Your task to perform on an android device: Open calendar and show me the fourth week of next month Image 0: 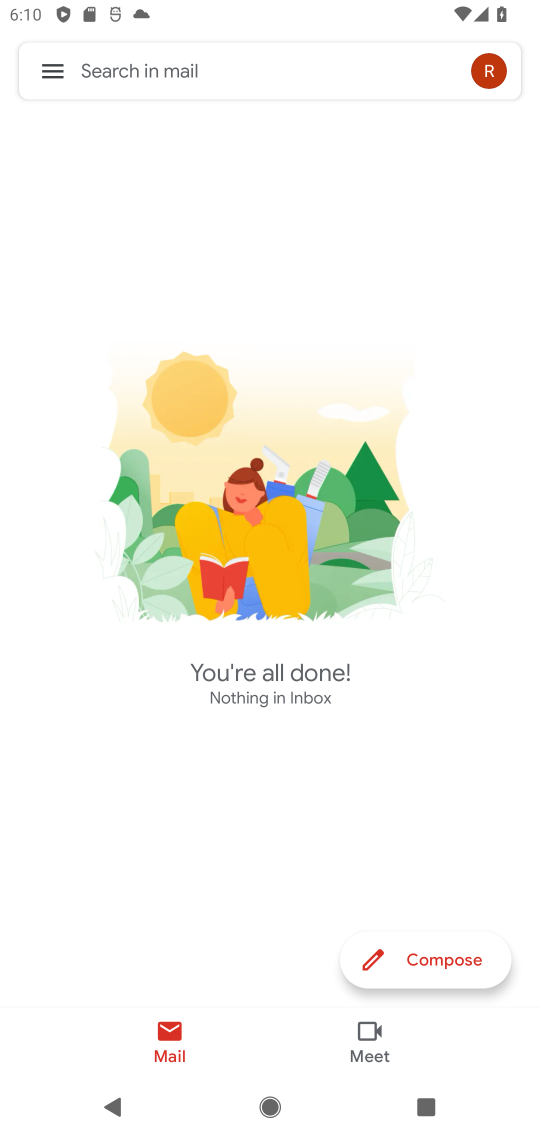
Step 0: press home button
Your task to perform on an android device: Open calendar and show me the fourth week of next month Image 1: 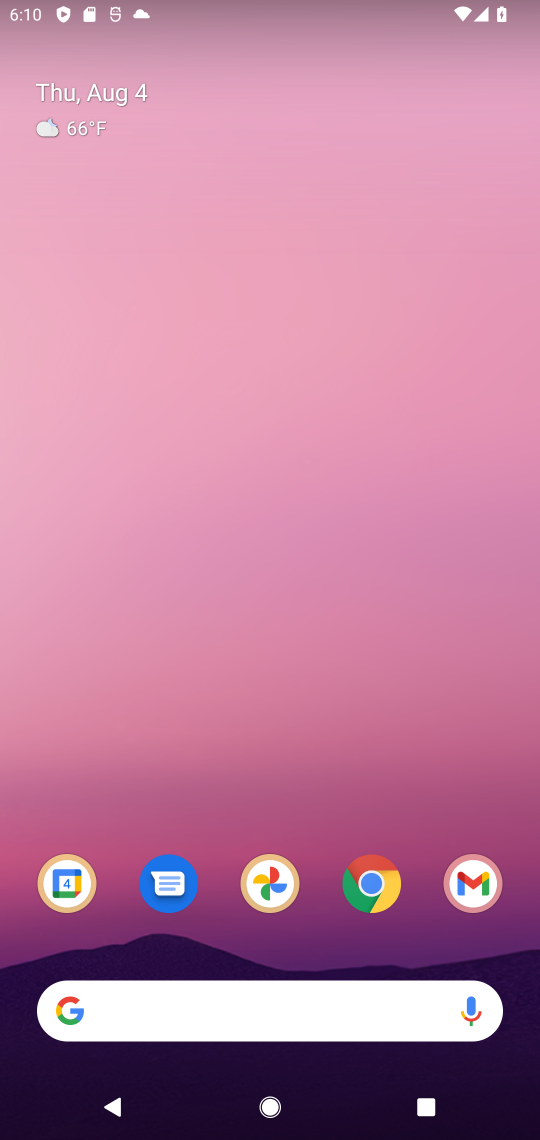
Step 1: click (59, 902)
Your task to perform on an android device: Open calendar and show me the fourth week of next month Image 2: 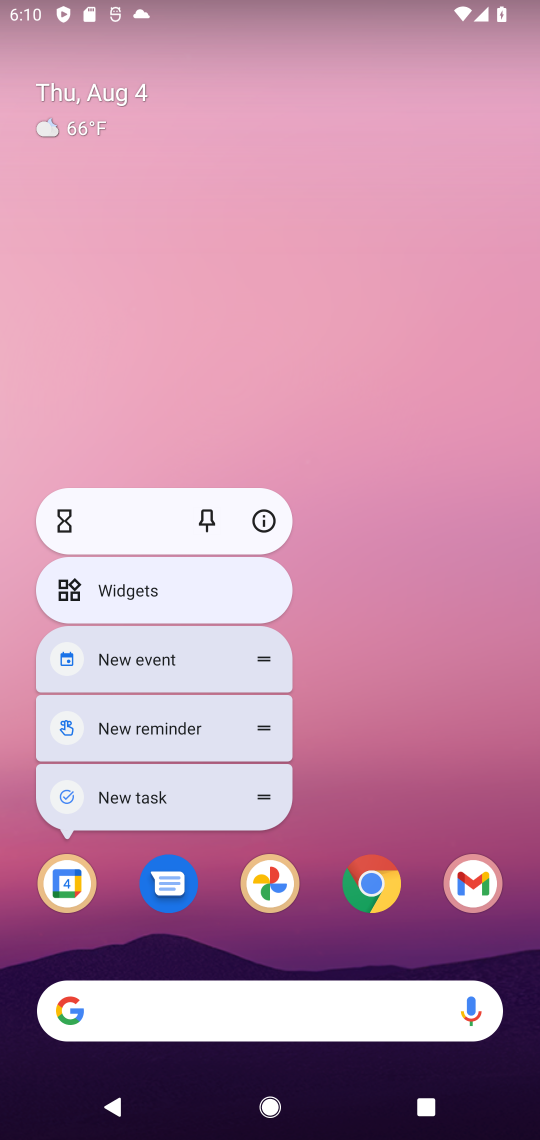
Step 2: click (59, 902)
Your task to perform on an android device: Open calendar and show me the fourth week of next month Image 3: 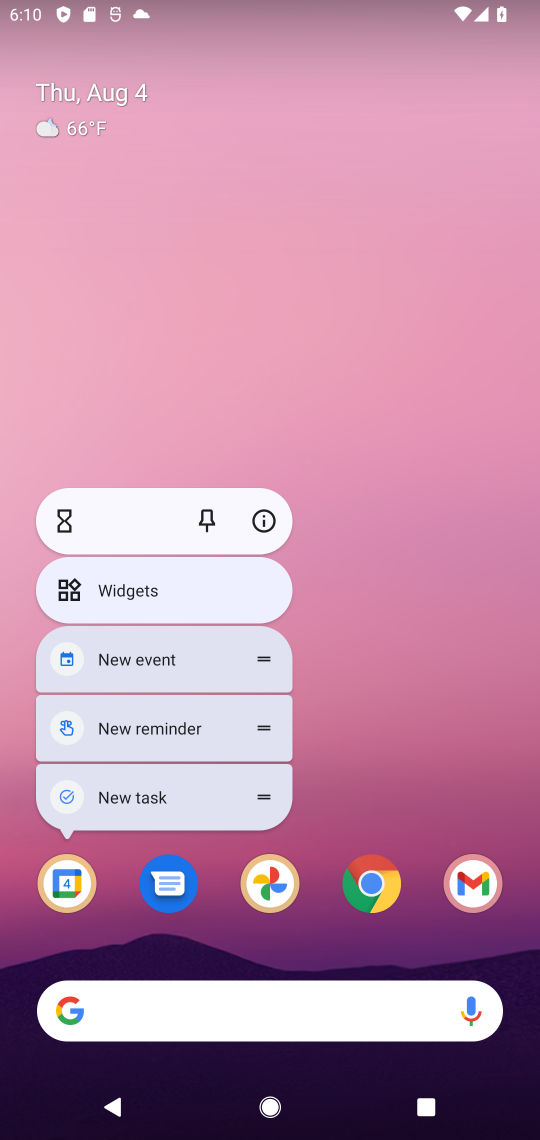
Step 3: click (89, 879)
Your task to perform on an android device: Open calendar and show me the fourth week of next month Image 4: 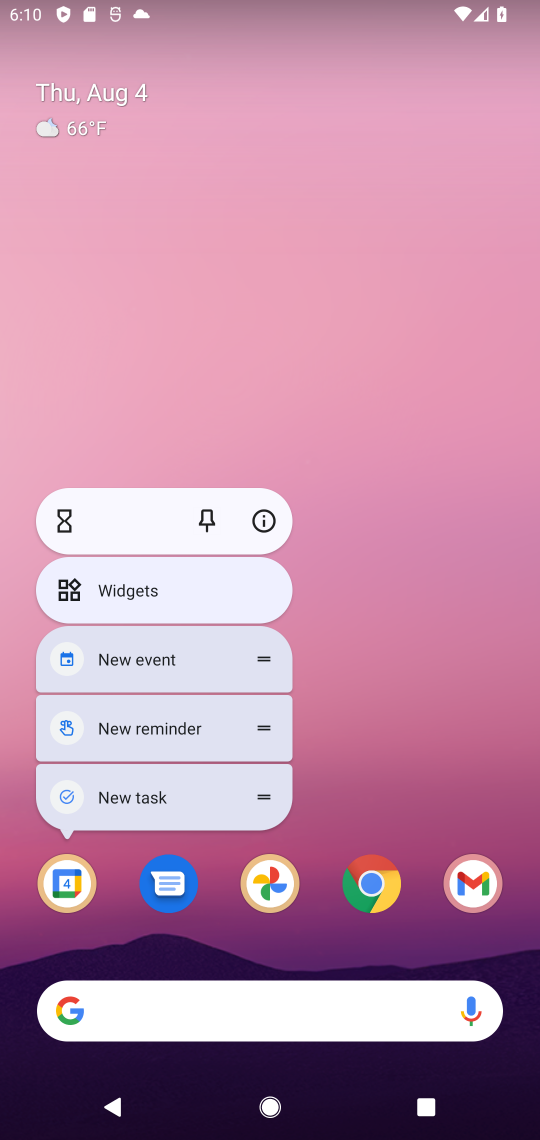
Step 4: click (54, 876)
Your task to perform on an android device: Open calendar and show me the fourth week of next month Image 5: 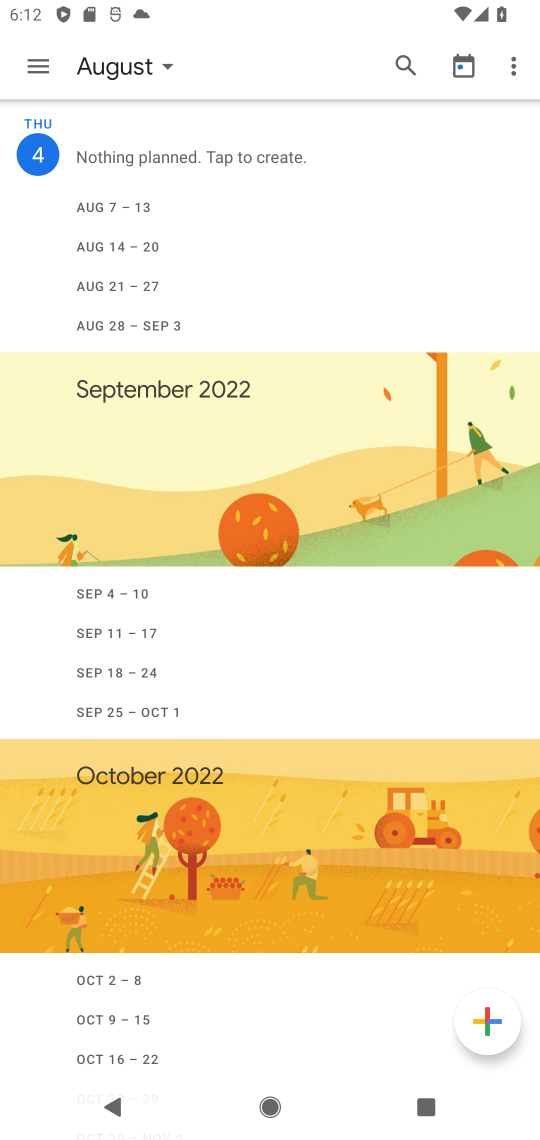
Step 5: click (138, 60)
Your task to perform on an android device: Open calendar and show me the fourth week of next month Image 6: 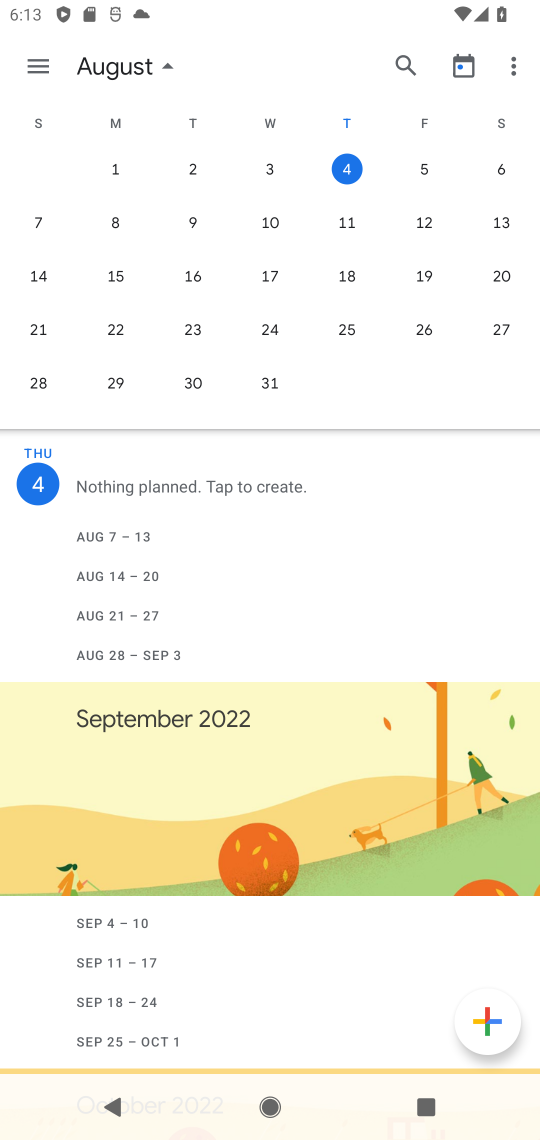
Step 6: click (118, 66)
Your task to perform on an android device: Open calendar and show me the fourth week of next month Image 7: 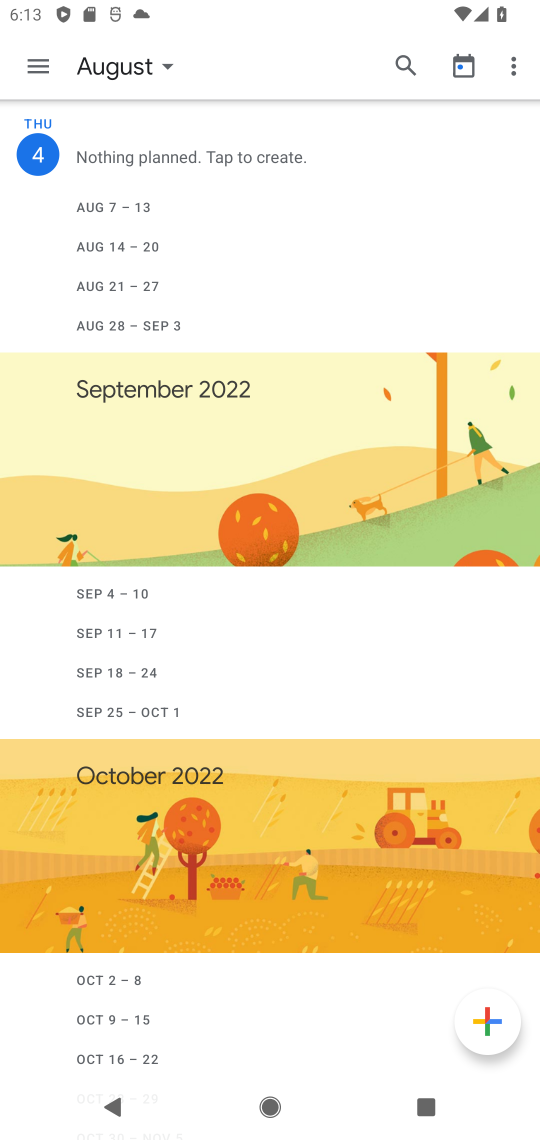
Step 7: click (118, 66)
Your task to perform on an android device: Open calendar and show me the fourth week of next month Image 8: 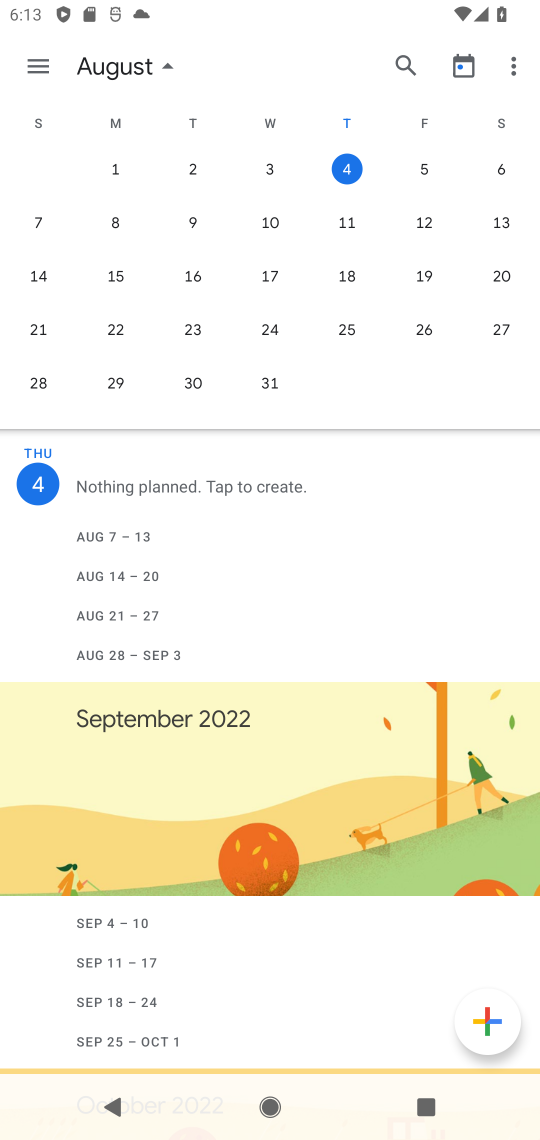
Step 8: drag from (495, 263) to (14, 282)
Your task to perform on an android device: Open calendar and show me the fourth week of next month Image 9: 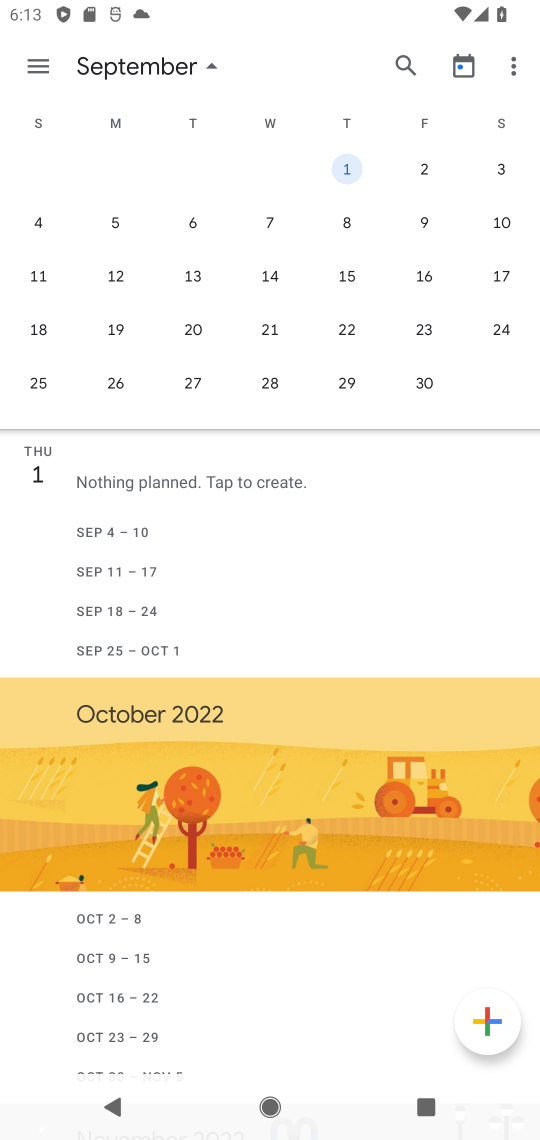
Step 9: click (46, 324)
Your task to perform on an android device: Open calendar and show me the fourth week of next month Image 10: 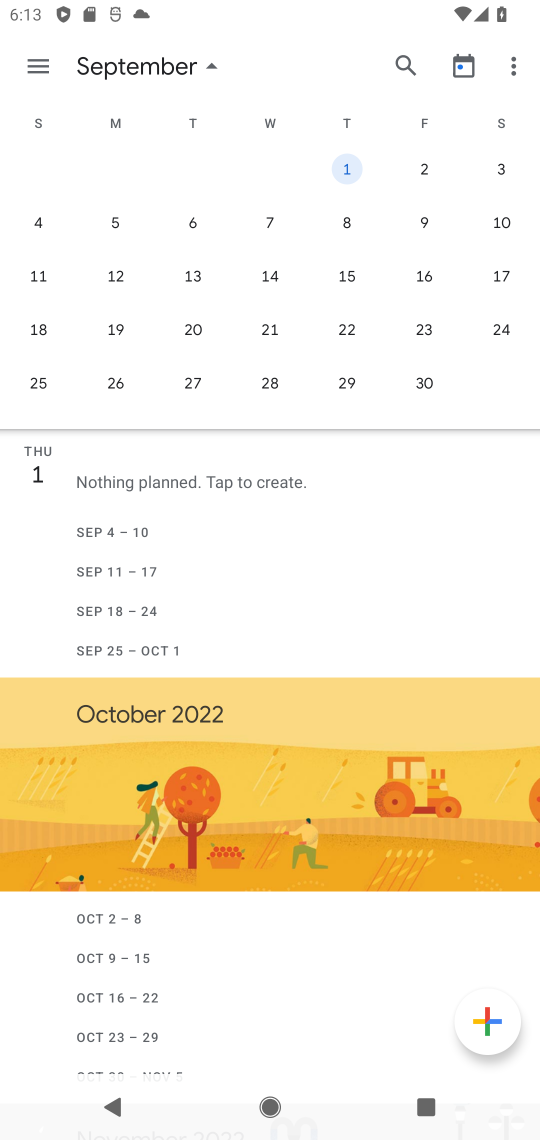
Step 10: click (38, 317)
Your task to perform on an android device: Open calendar and show me the fourth week of next month Image 11: 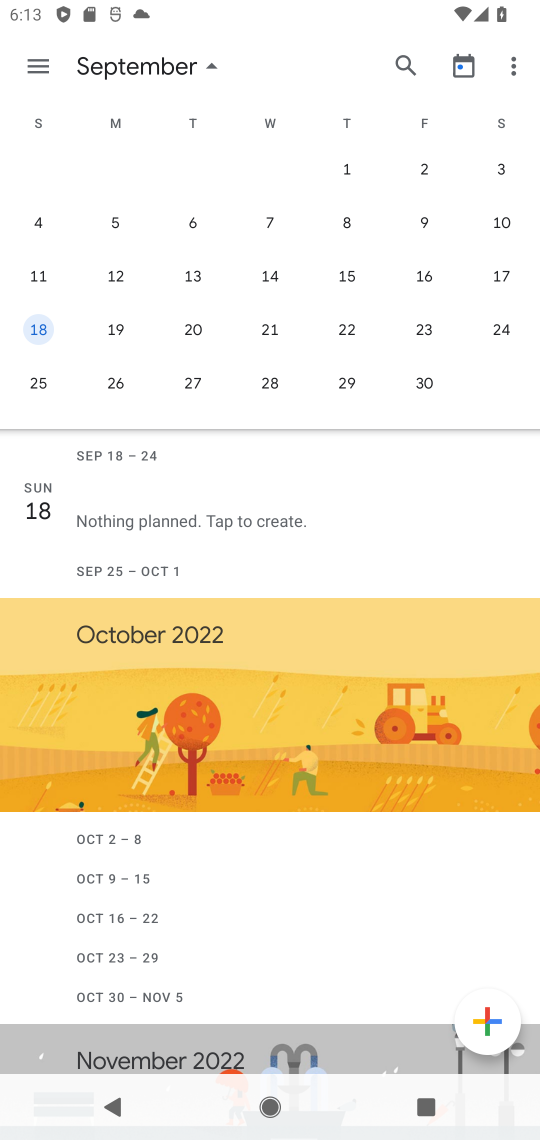
Step 11: task complete